Your task to perform on an android device: Open Youtube and go to "Your channel" Image 0: 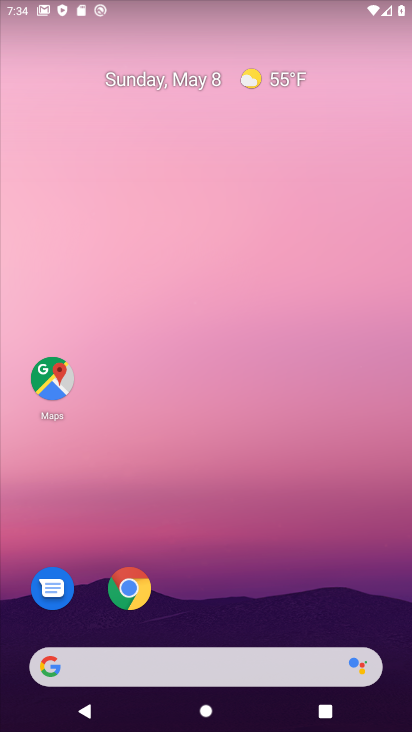
Step 0: drag from (306, 608) to (258, 67)
Your task to perform on an android device: Open Youtube and go to "Your channel" Image 1: 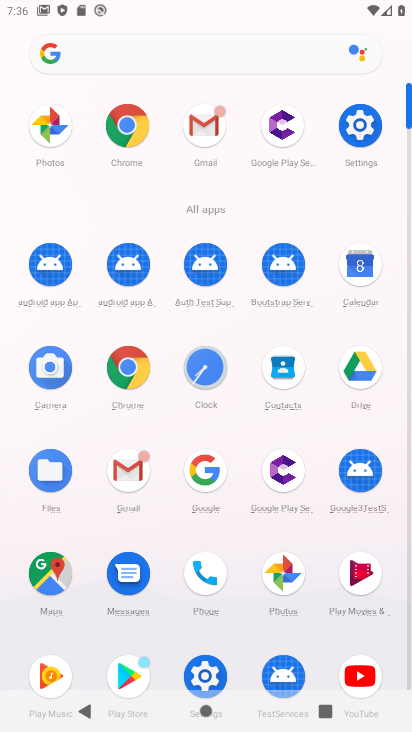
Step 1: click (353, 681)
Your task to perform on an android device: Open Youtube and go to "Your channel" Image 2: 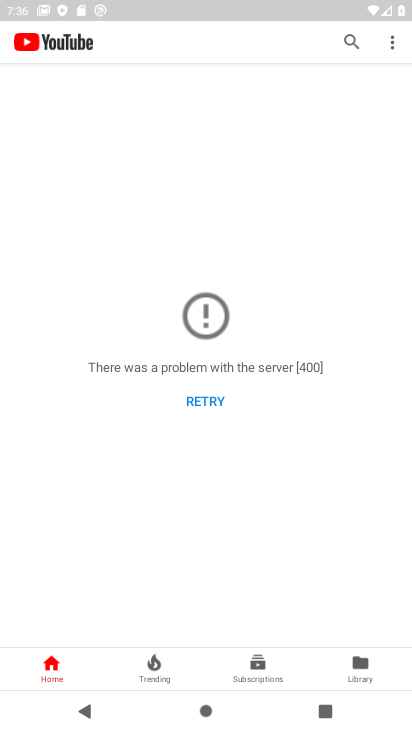
Step 2: click (195, 394)
Your task to perform on an android device: Open Youtube and go to "Your channel" Image 3: 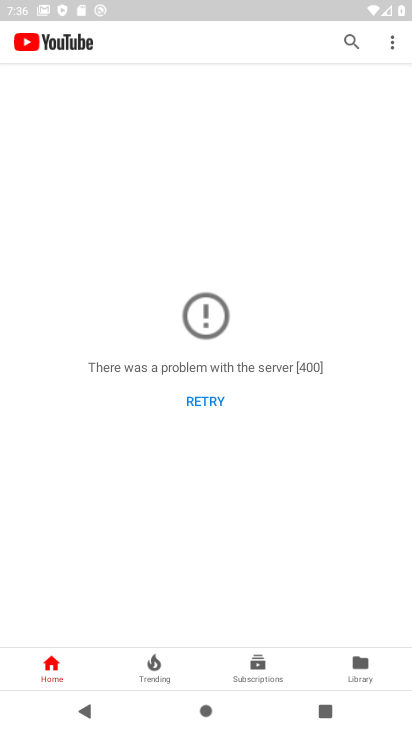
Step 3: click (195, 394)
Your task to perform on an android device: Open Youtube and go to "Your channel" Image 4: 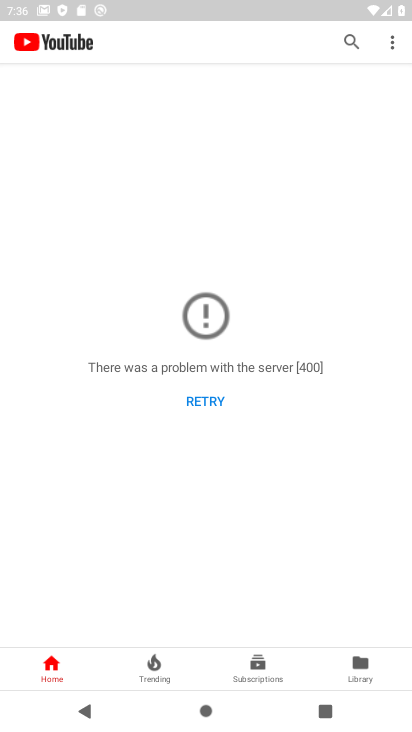
Step 4: click (195, 394)
Your task to perform on an android device: Open Youtube and go to "Your channel" Image 5: 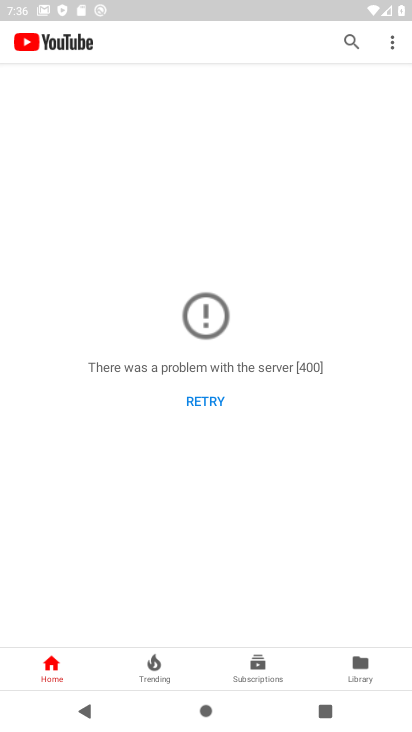
Step 5: task complete